Your task to perform on an android device: turn off location history Image 0: 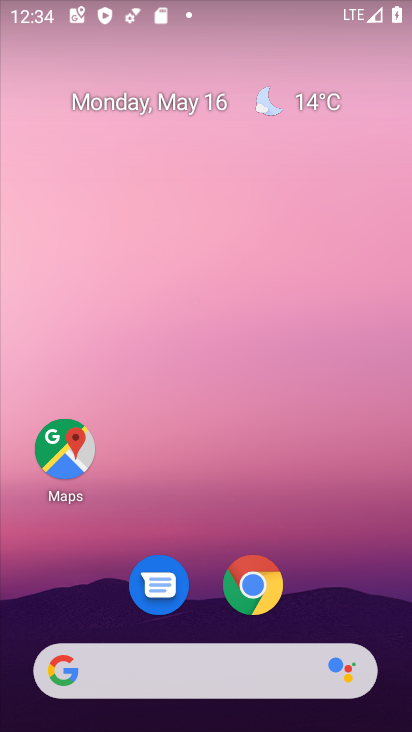
Step 0: drag from (289, 520) to (306, 3)
Your task to perform on an android device: turn off location history Image 1: 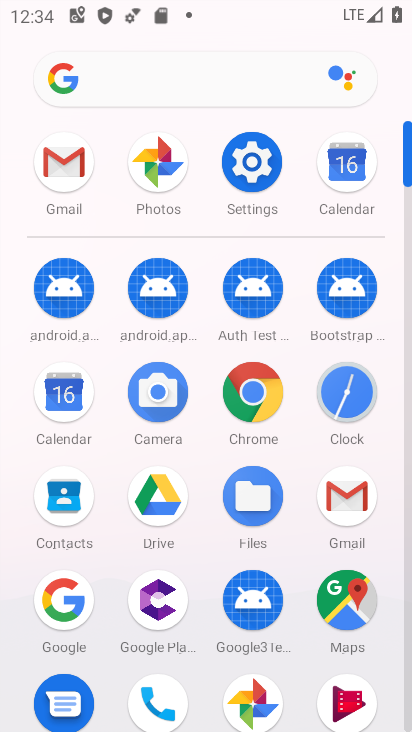
Step 1: click (258, 157)
Your task to perform on an android device: turn off location history Image 2: 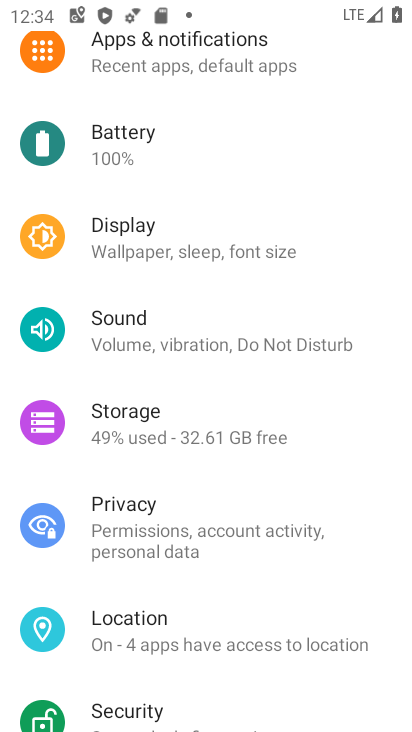
Step 2: click (232, 636)
Your task to perform on an android device: turn off location history Image 3: 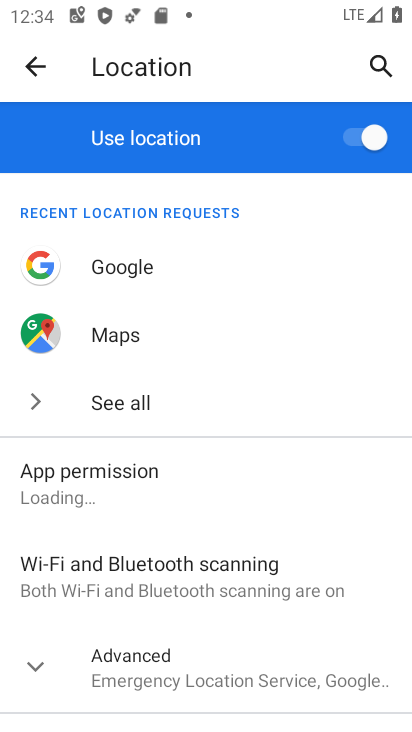
Step 3: drag from (247, 518) to (250, 151)
Your task to perform on an android device: turn off location history Image 4: 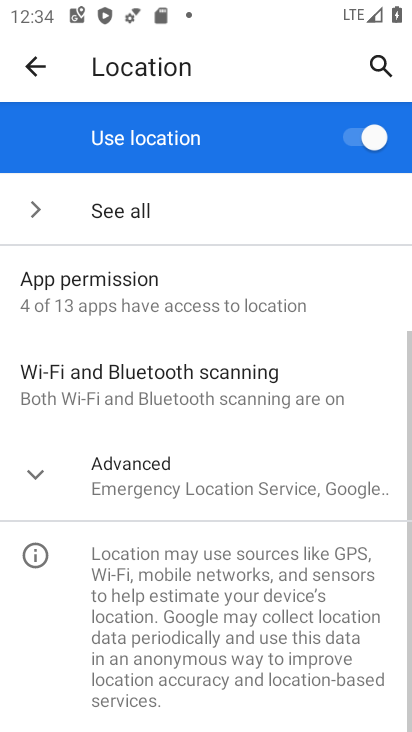
Step 4: click (38, 474)
Your task to perform on an android device: turn off location history Image 5: 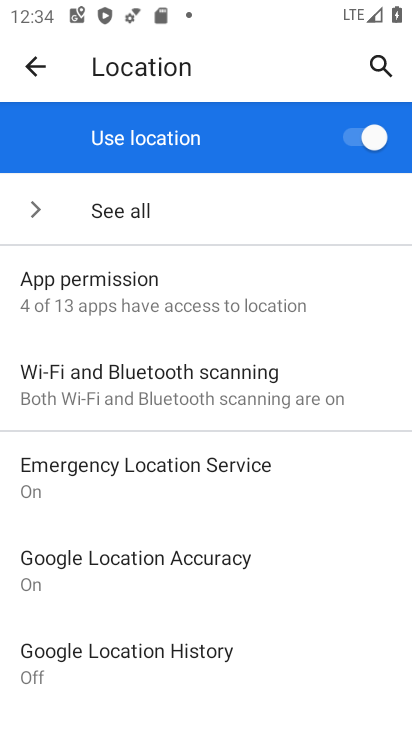
Step 5: task complete